Your task to perform on an android device: Open Wikipedia Image 0: 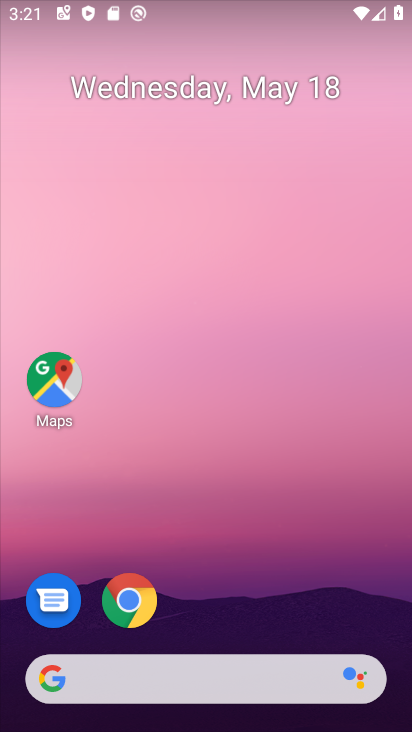
Step 0: click (122, 594)
Your task to perform on an android device: Open Wikipedia Image 1: 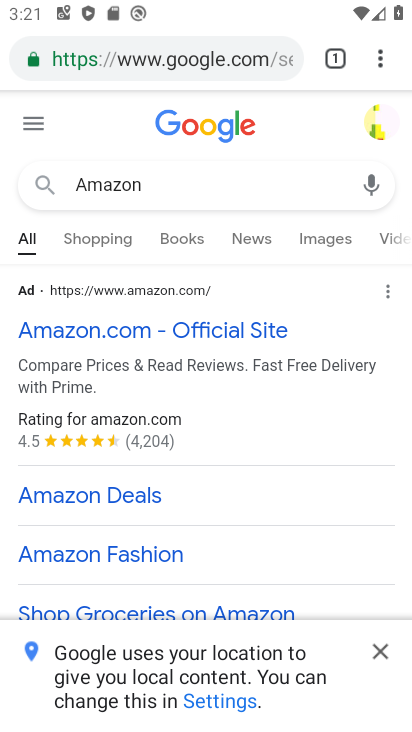
Step 1: click (97, 66)
Your task to perform on an android device: Open Wikipedia Image 2: 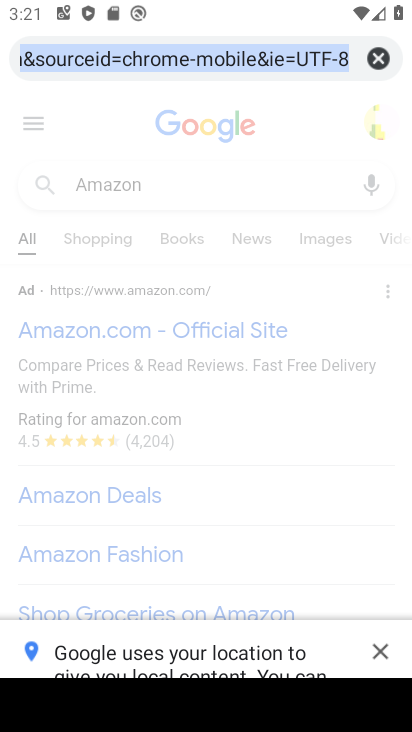
Step 2: type "wikipedia"
Your task to perform on an android device: Open Wikipedia Image 3: 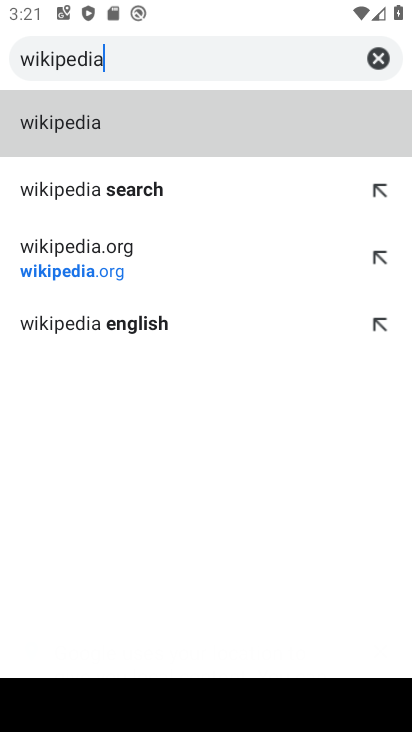
Step 3: click (85, 141)
Your task to perform on an android device: Open Wikipedia Image 4: 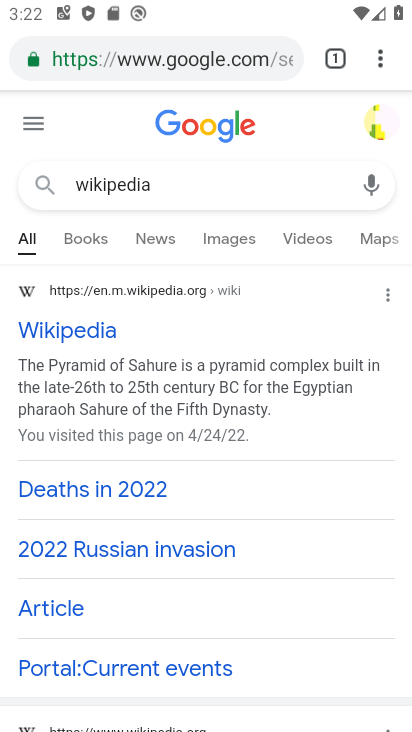
Step 4: task complete